Your task to perform on an android device: turn smart compose on in the gmail app Image 0: 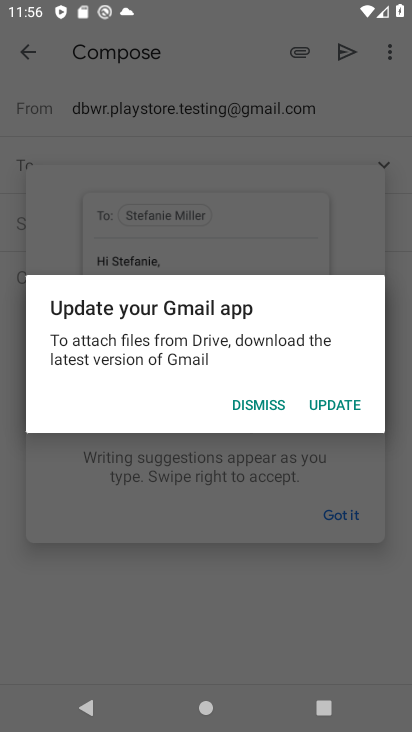
Step 0: press home button
Your task to perform on an android device: turn smart compose on in the gmail app Image 1: 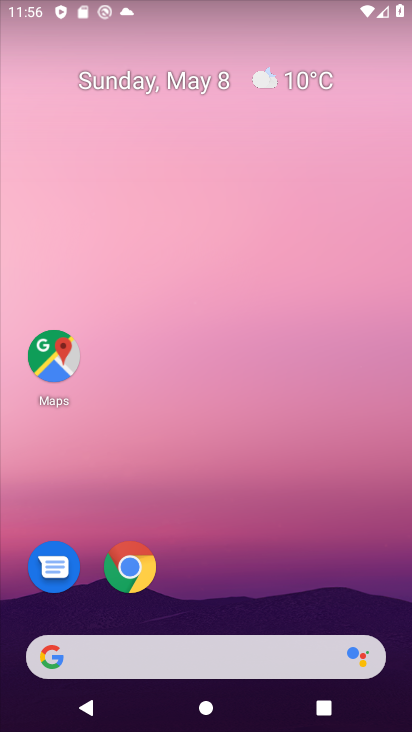
Step 1: drag from (277, 584) to (404, 210)
Your task to perform on an android device: turn smart compose on in the gmail app Image 2: 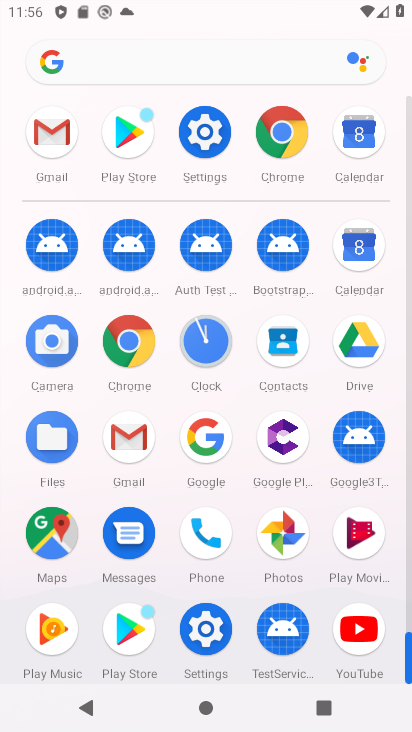
Step 2: click (136, 456)
Your task to perform on an android device: turn smart compose on in the gmail app Image 3: 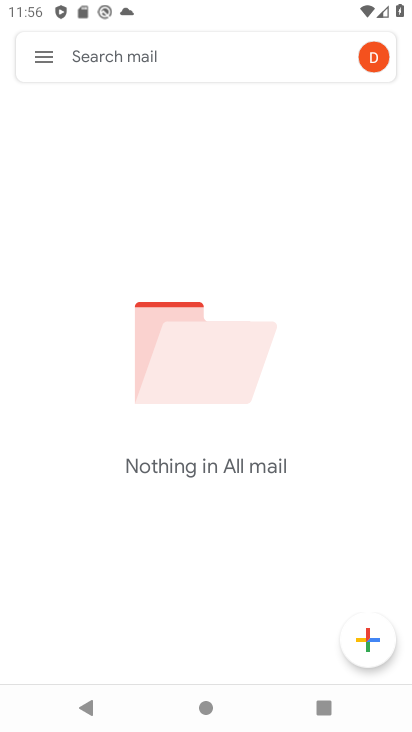
Step 3: click (54, 55)
Your task to perform on an android device: turn smart compose on in the gmail app Image 4: 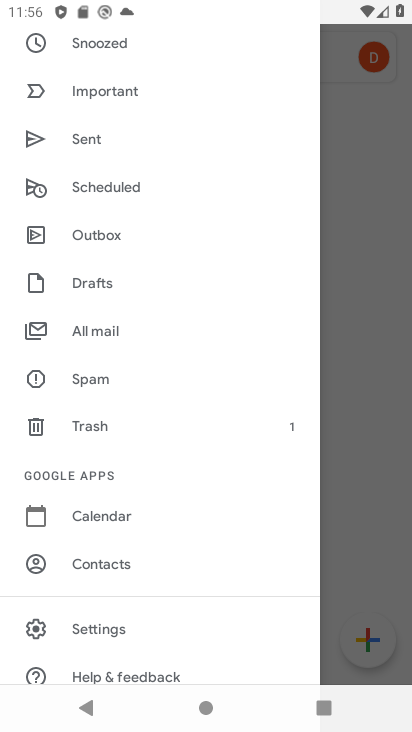
Step 4: drag from (119, 606) to (150, 368)
Your task to perform on an android device: turn smart compose on in the gmail app Image 5: 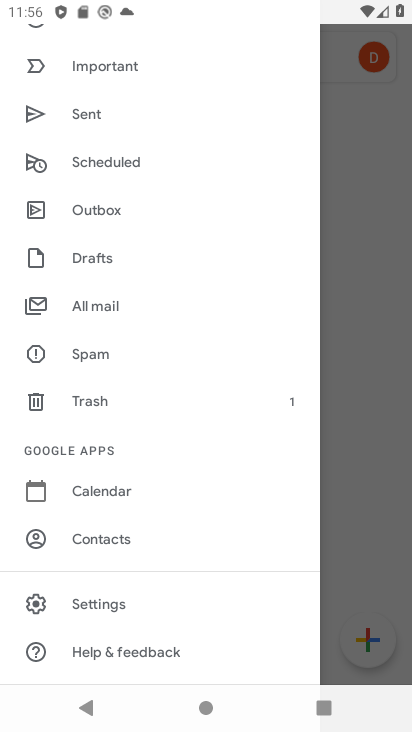
Step 5: click (107, 615)
Your task to perform on an android device: turn smart compose on in the gmail app Image 6: 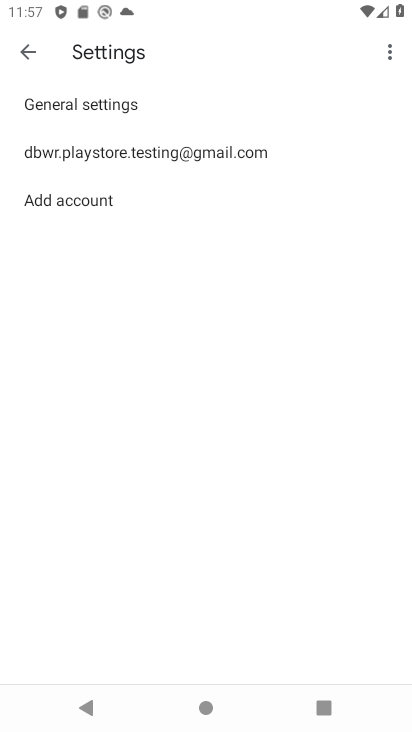
Step 6: click (153, 172)
Your task to perform on an android device: turn smart compose on in the gmail app Image 7: 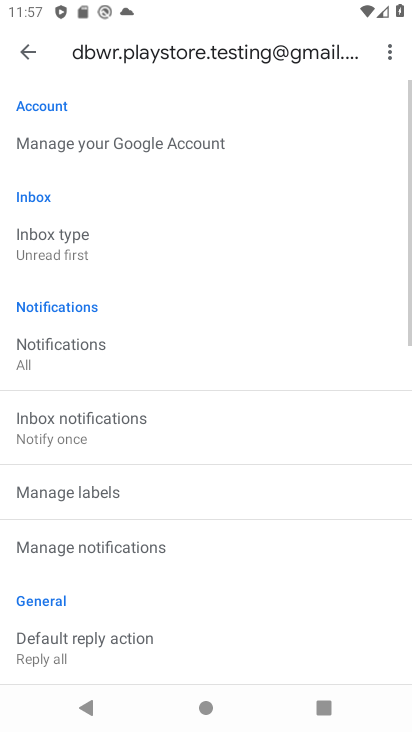
Step 7: task complete